Your task to perform on an android device: check android version Image 0: 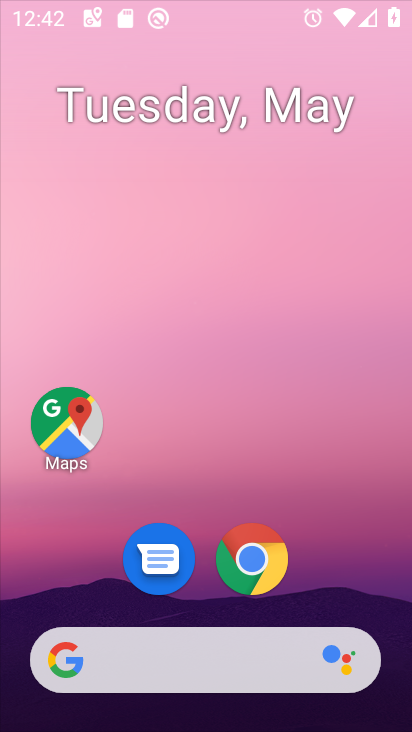
Step 0: drag from (304, 194) to (286, 126)
Your task to perform on an android device: check android version Image 1: 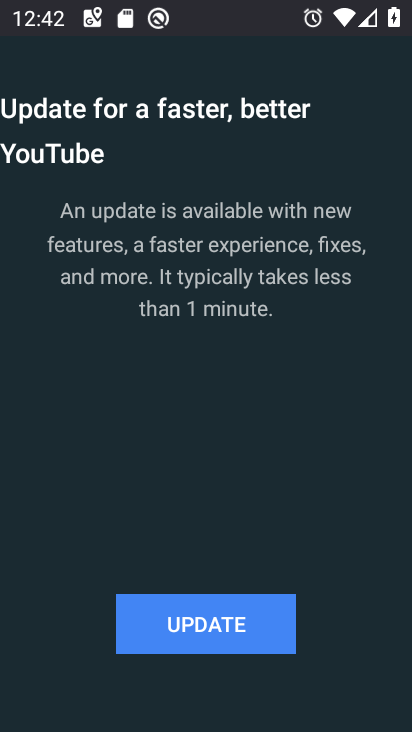
Step 1: press back button
Your task to perform on an android device: check android version Image 2: 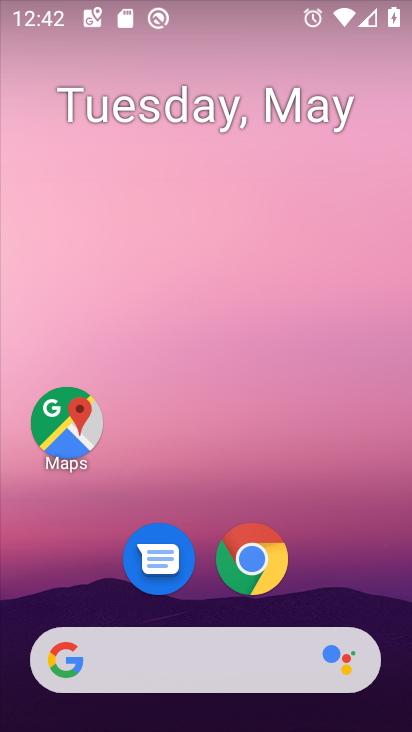
Step 2: drag from (354, 596) to (320, 178)
Your task to perform on an android device: check android version Image 3: 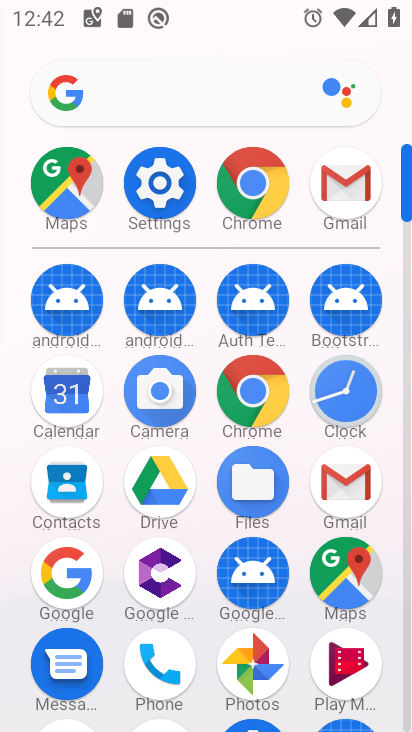
Step 3: click (178, 209)
Your task to perform on an android device: check android version Image 4: 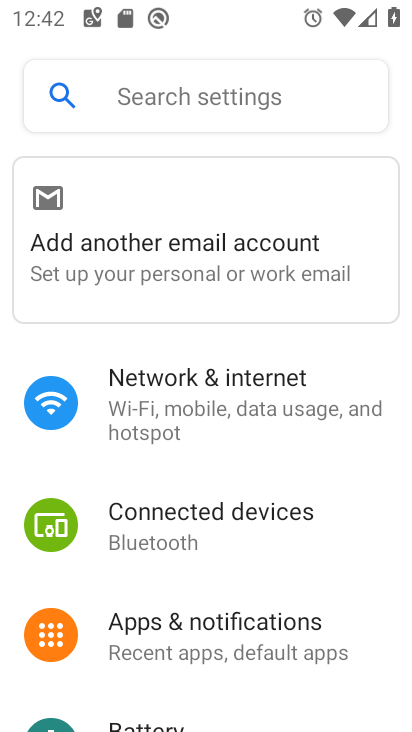
Step 4: drag from (291, 685) to (224, 114)
Your task to perform on an android device: check android version Image 5: 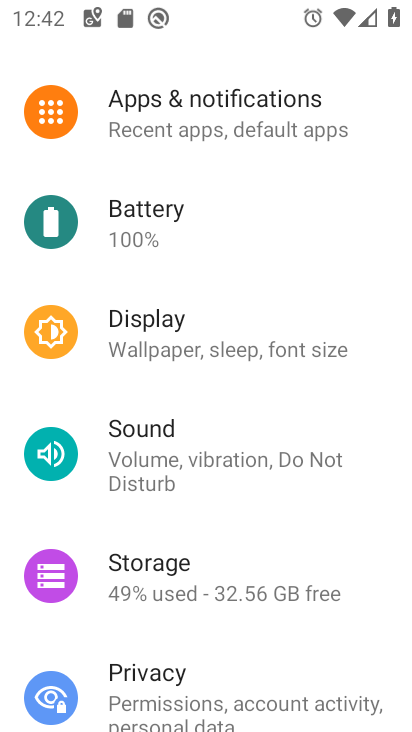
Step 5: drag from (292, 658) to (226, 56)
Your task to perform on an android device: check android version Image 6: 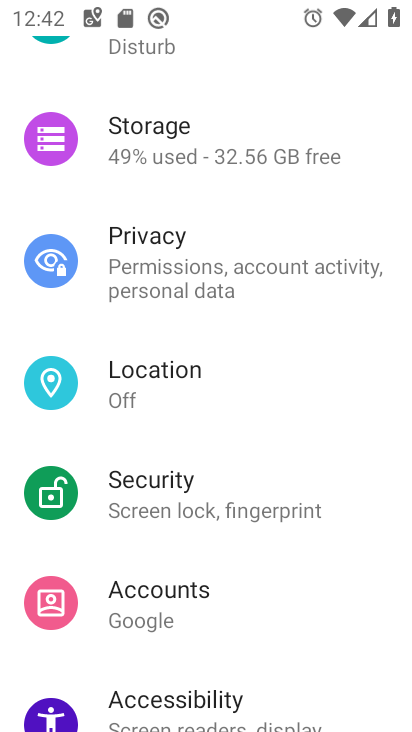
Step 6: drag from (238, 650) to (159, 98)
Your task to perform on an android device: check android version Image 7: 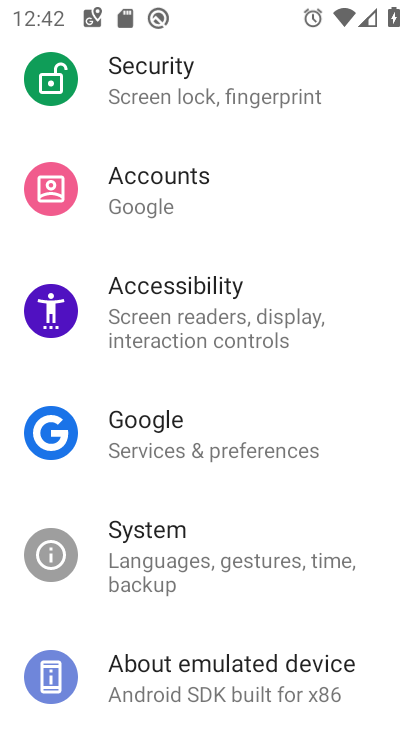
Step 7: drag from (236, 622) to (203, 365)
Your task to perform on an android device: check android version Image 8: 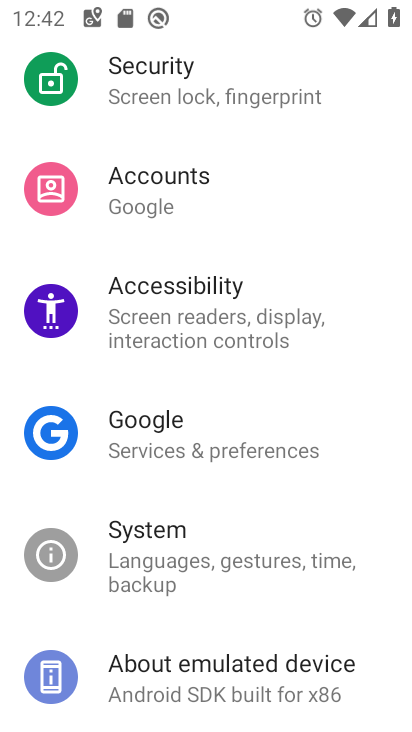
Step 8: click (223, 677)
Your task to perform on an android device: check android version Image 9: 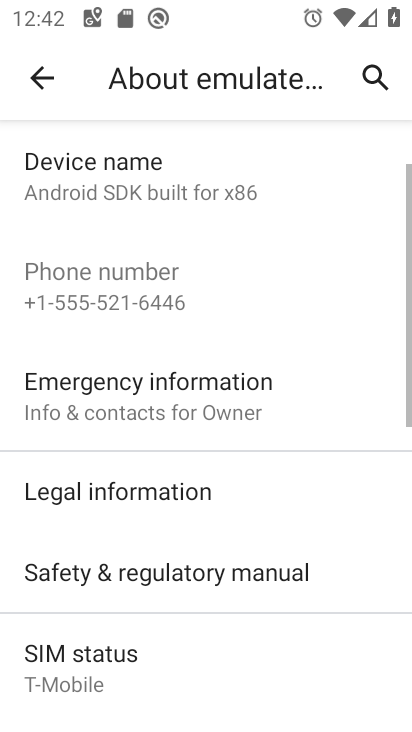
Step 9: drag from (223, 677) to (170, 226)
Your task to perform on an android device: check android version Image 10: 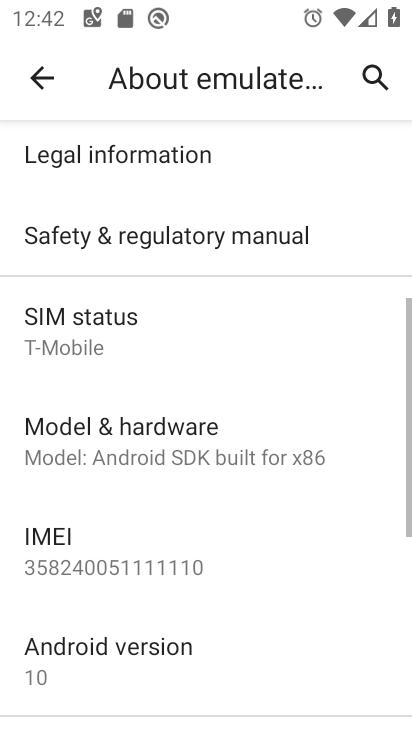
Step 10: click (211, 651)
Your task to perform on an android device: check android version Image 11: 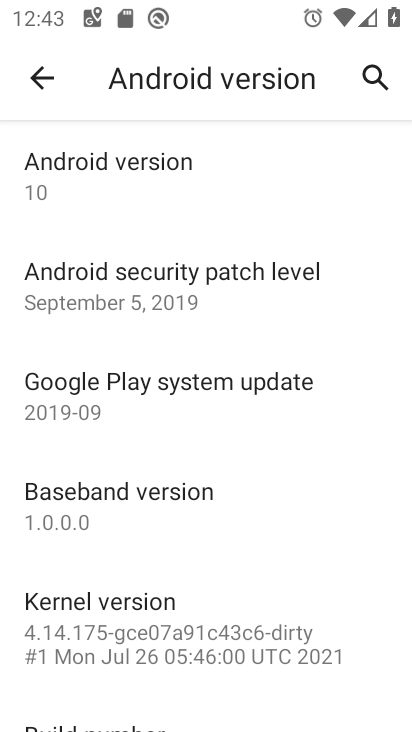
Step 11: task complete